Your task to perform on an android device: Open battery settings Image 0: 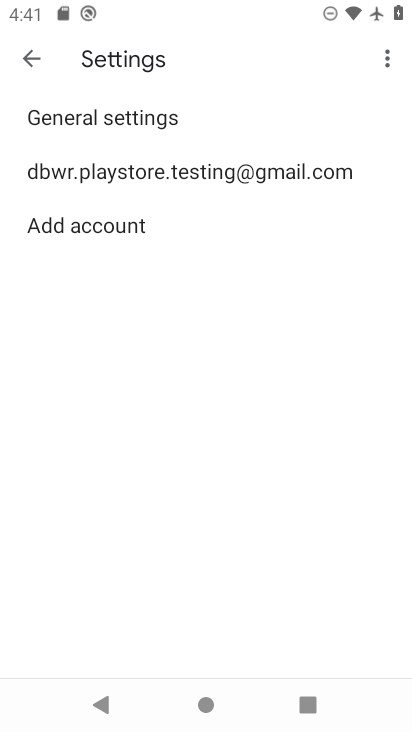
Step 0: press home button
Your task to perform on an android device: Open battery settings Image 1: 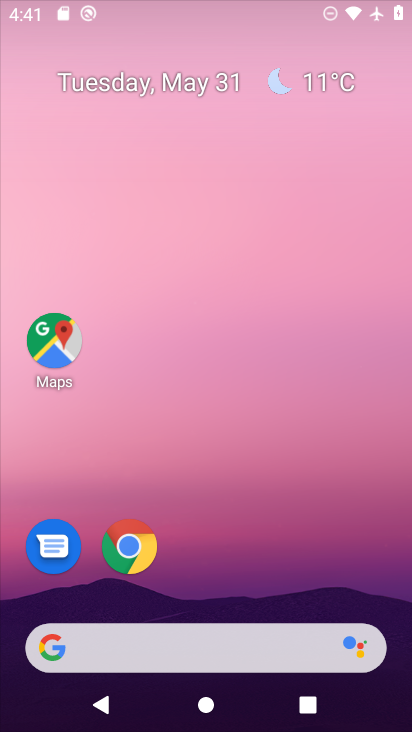
Step 1: drag from (262, 509) to (182, 0)
Your task to perform on an android device: Open battery settings Image 2: 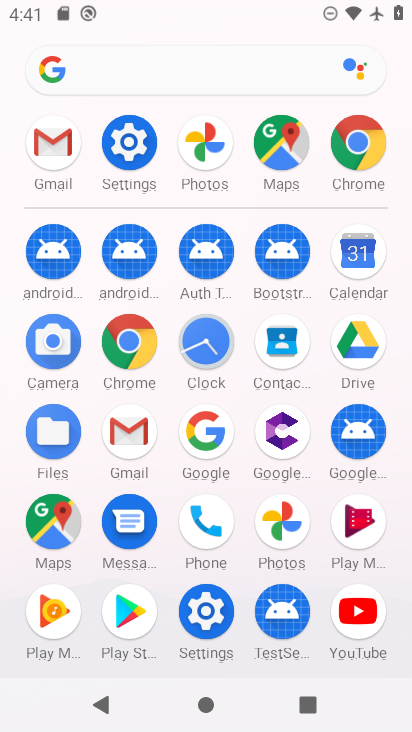
Step 2: click (145, 140)
Your task to perform on an android device: Open battery settings Image 3: 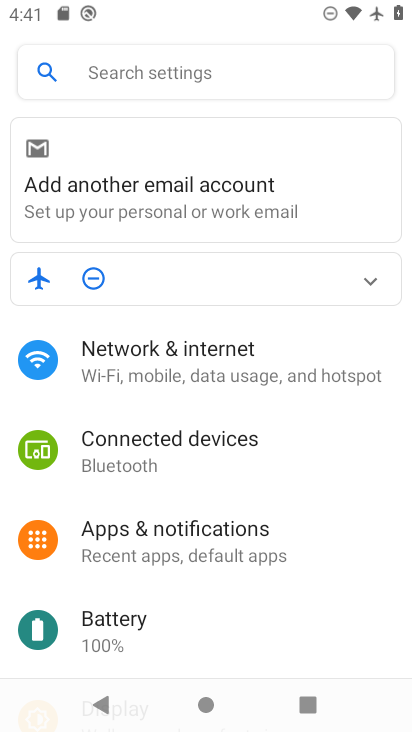
Step 3: click (184, 493)
Your task to perform on an android device: Open battery settings Image 4: 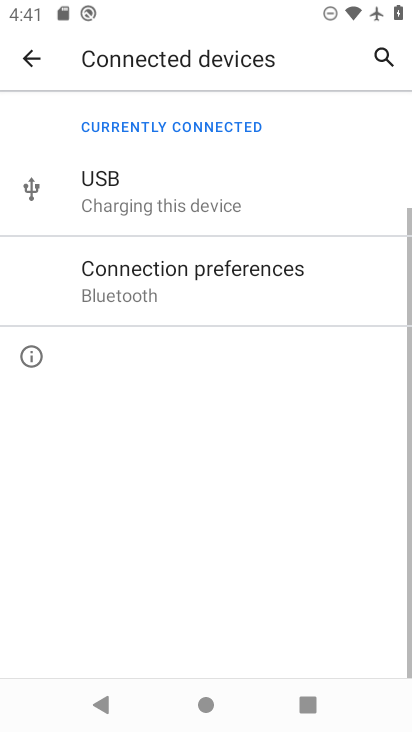
Step 4: press back button
Your task to perform on an android device: Open battery settings Image 5: 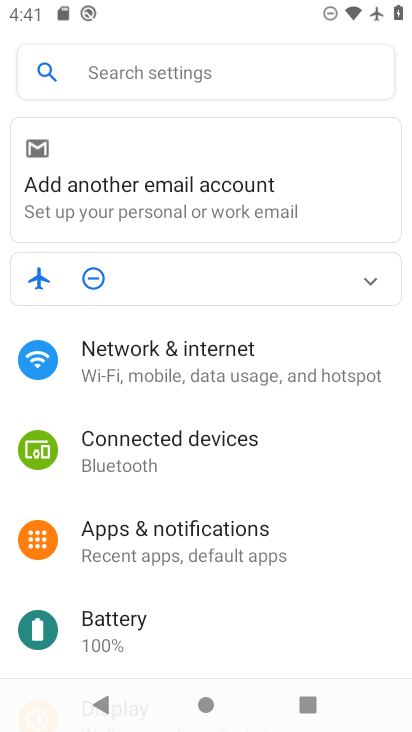
Step 5: click (156, 605)
Your task to perform on an android device: Open battery settings Image 6: 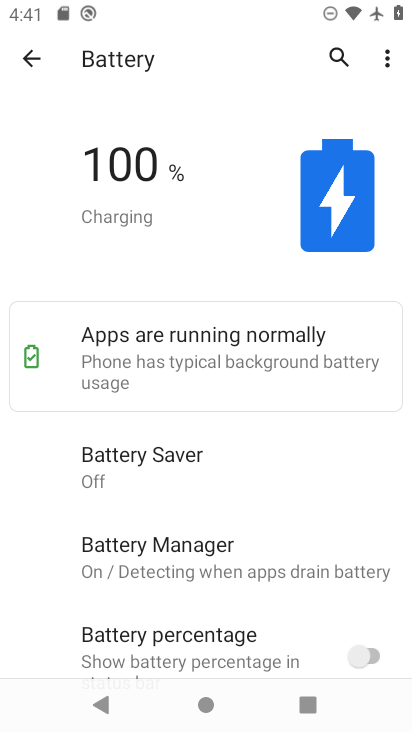
Step 6: task complete